Your task to perform on an android device: delete a single message in the gmail app Image 0: 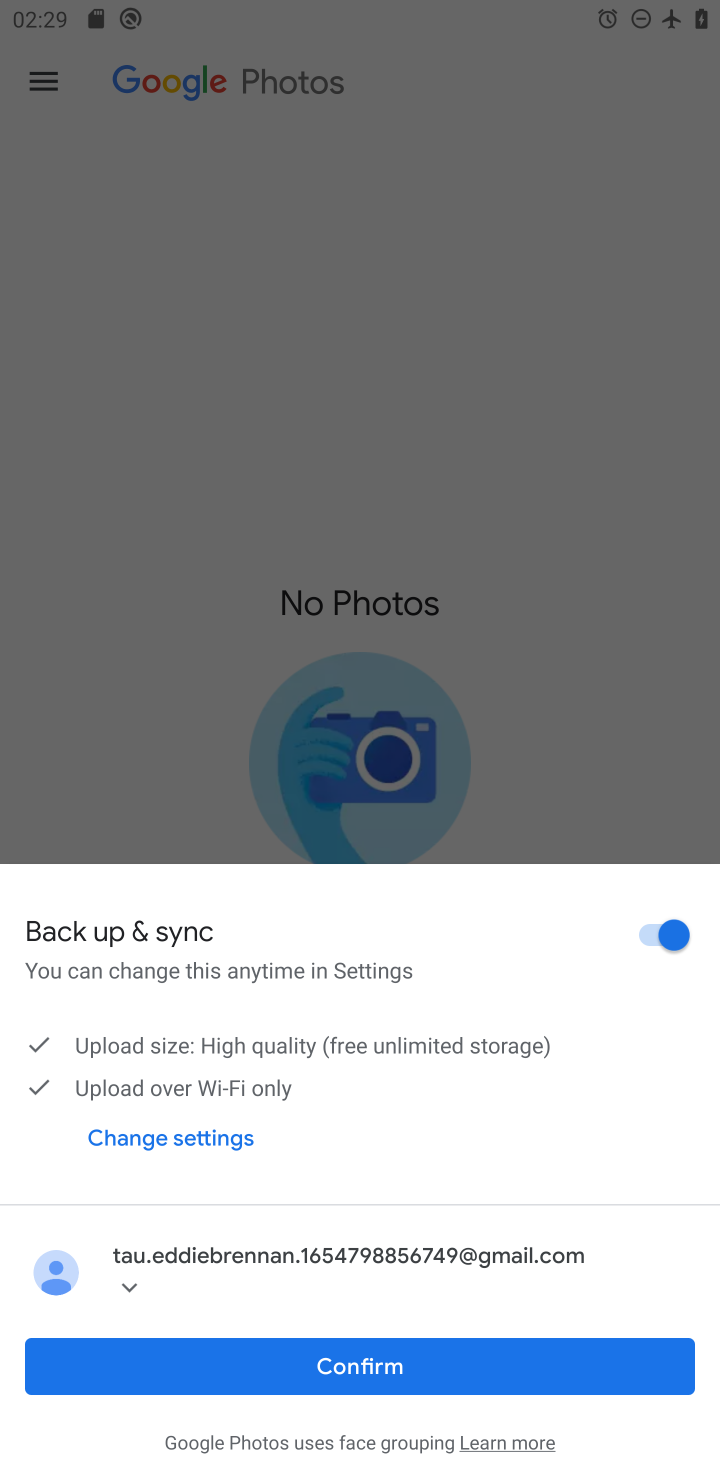
Step 0: press home button
Your task to perform on an android device: delete a single message in the gmail app Image 1: 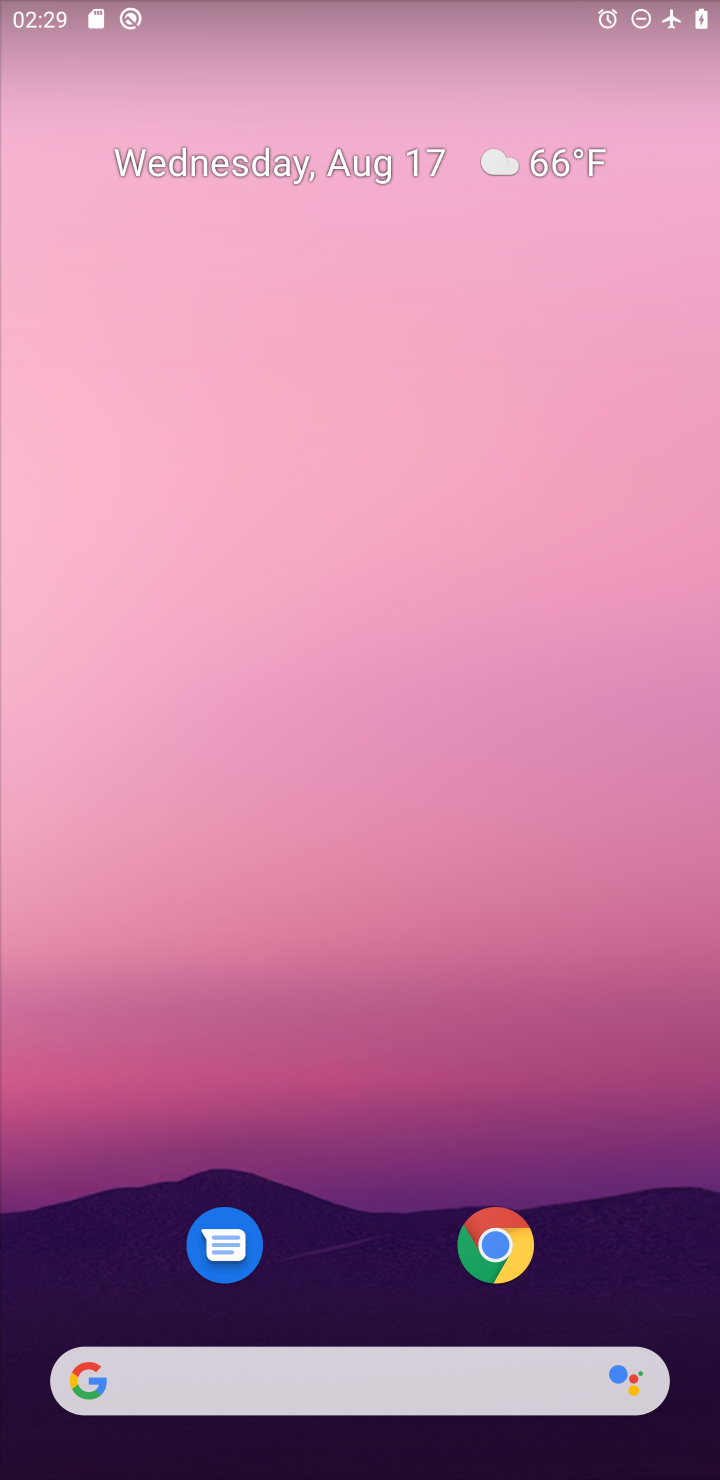
Step 1: drag from (343, 948) to (322, 20)
Your task to perform on an android device: delete a single message in the gmail app Image 2: 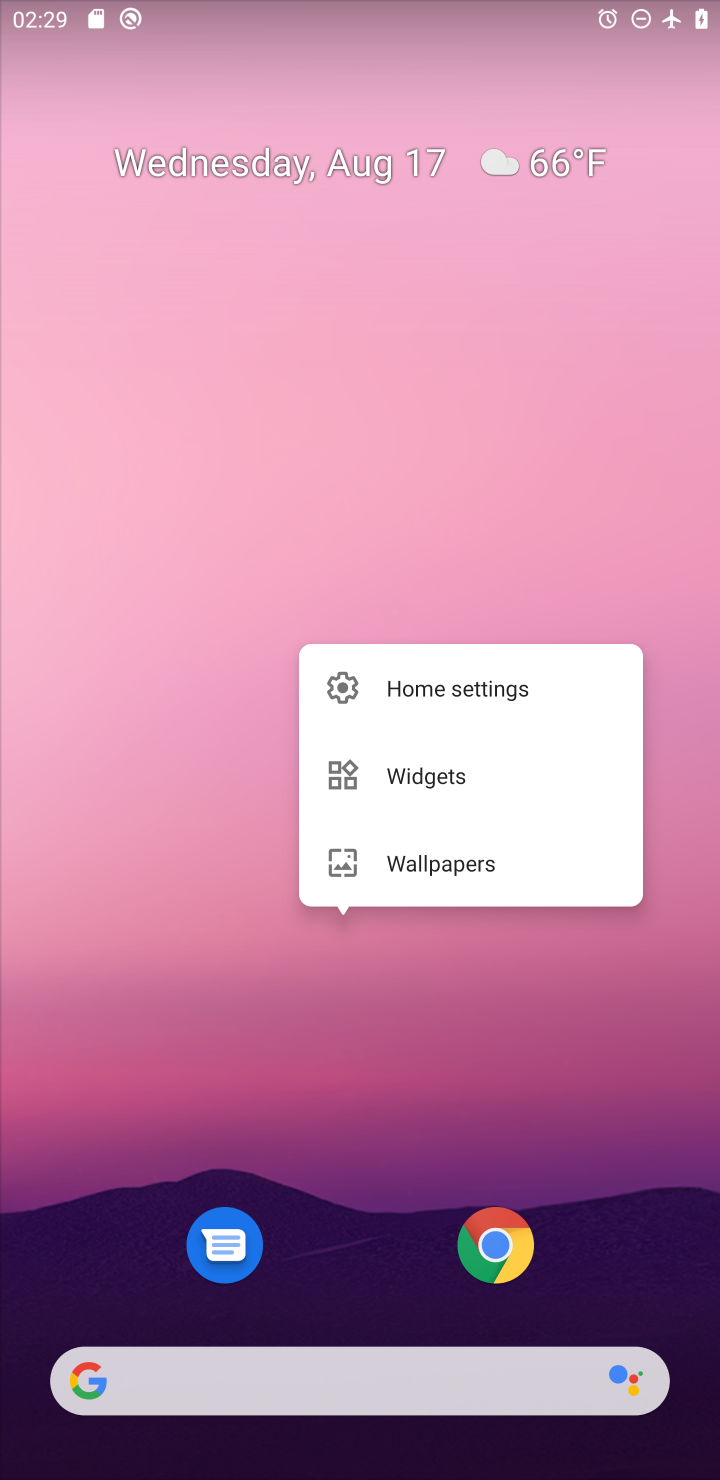
Step 2: click (446, 1030)
Your task to perform on an android device: delete a single message in the gmail app Image 3: 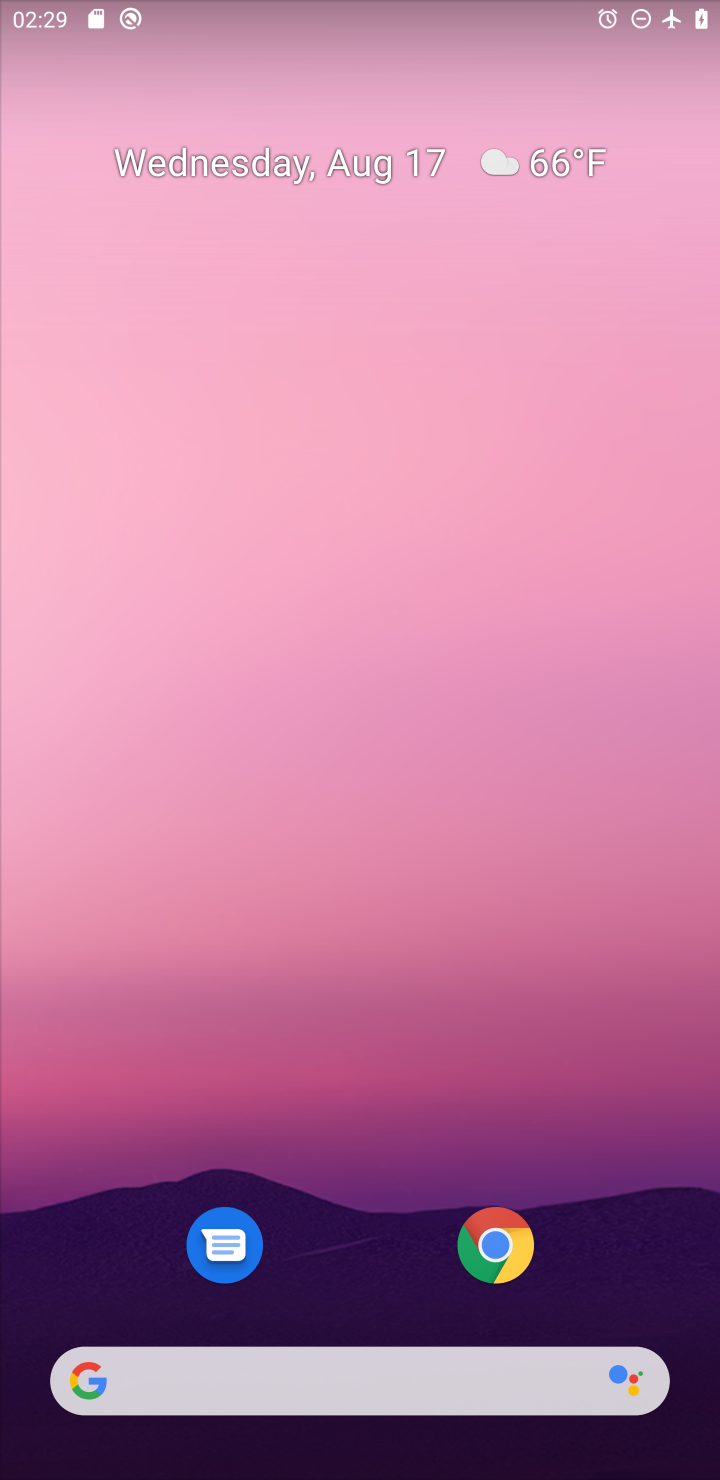
Step 3: drag from (373, 1174) to (323, 273)
Your task to perform on an android device: delete a single message in the gmail app Image 4: 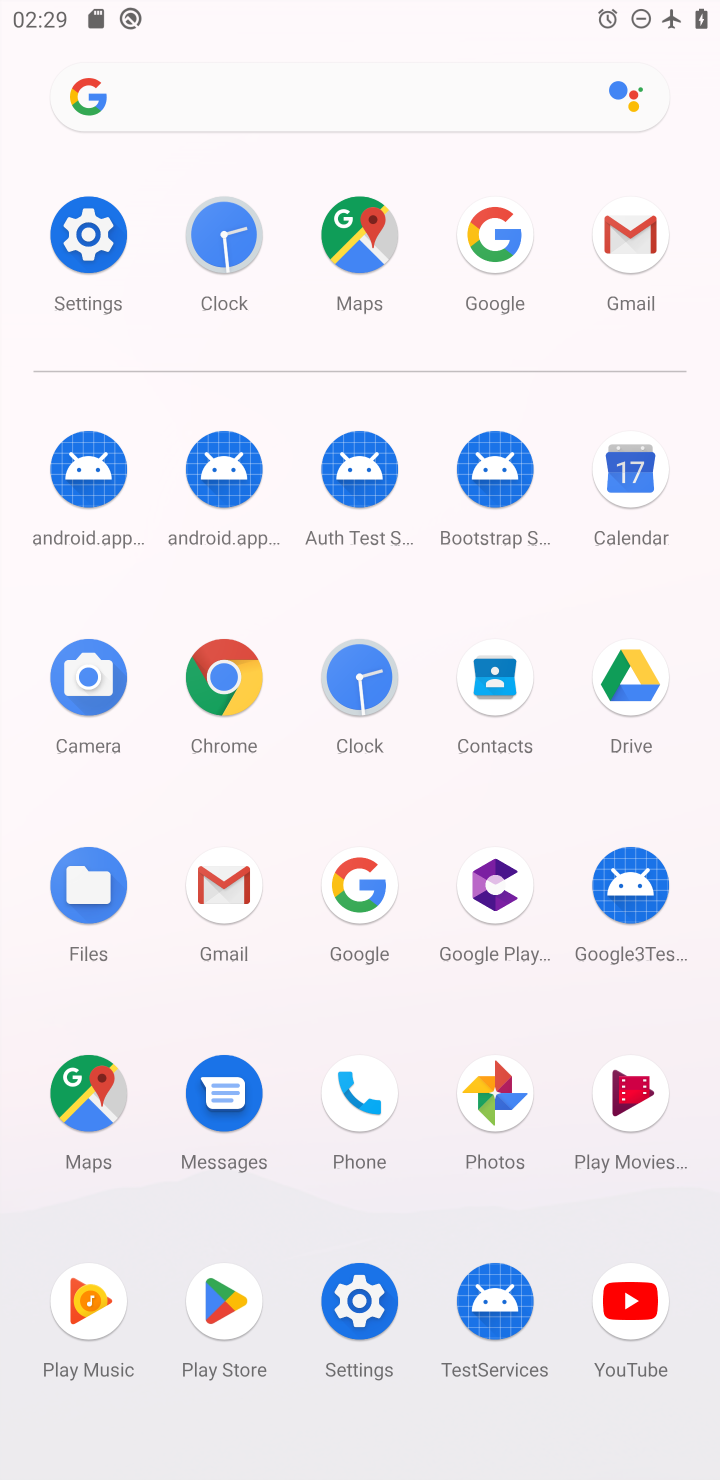
Step 4: click (228, 876)
Your task to perform on an android device: delete a single message in the gmail app Image 5: 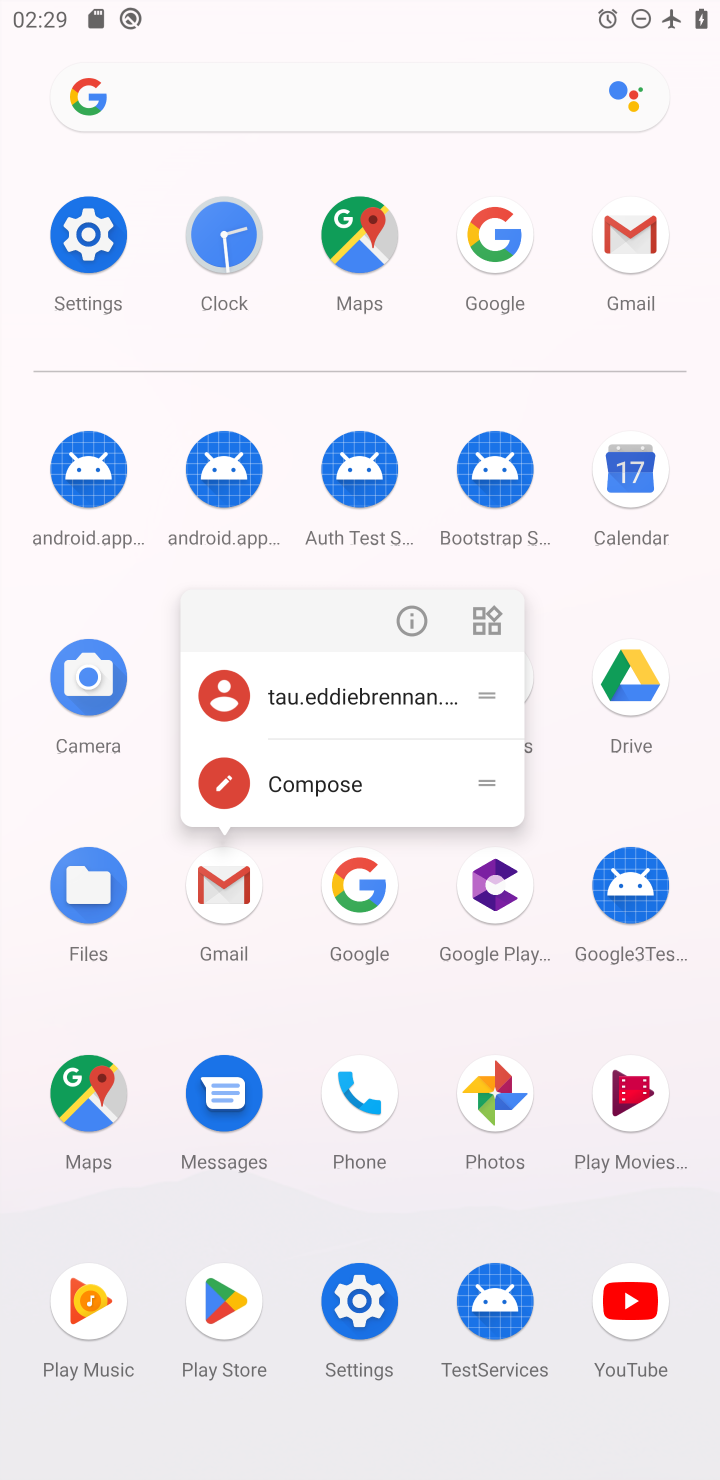
Step 5: click (228, 876)
Your task to perform on an android device: delete a single message in the gmail app Image 6: 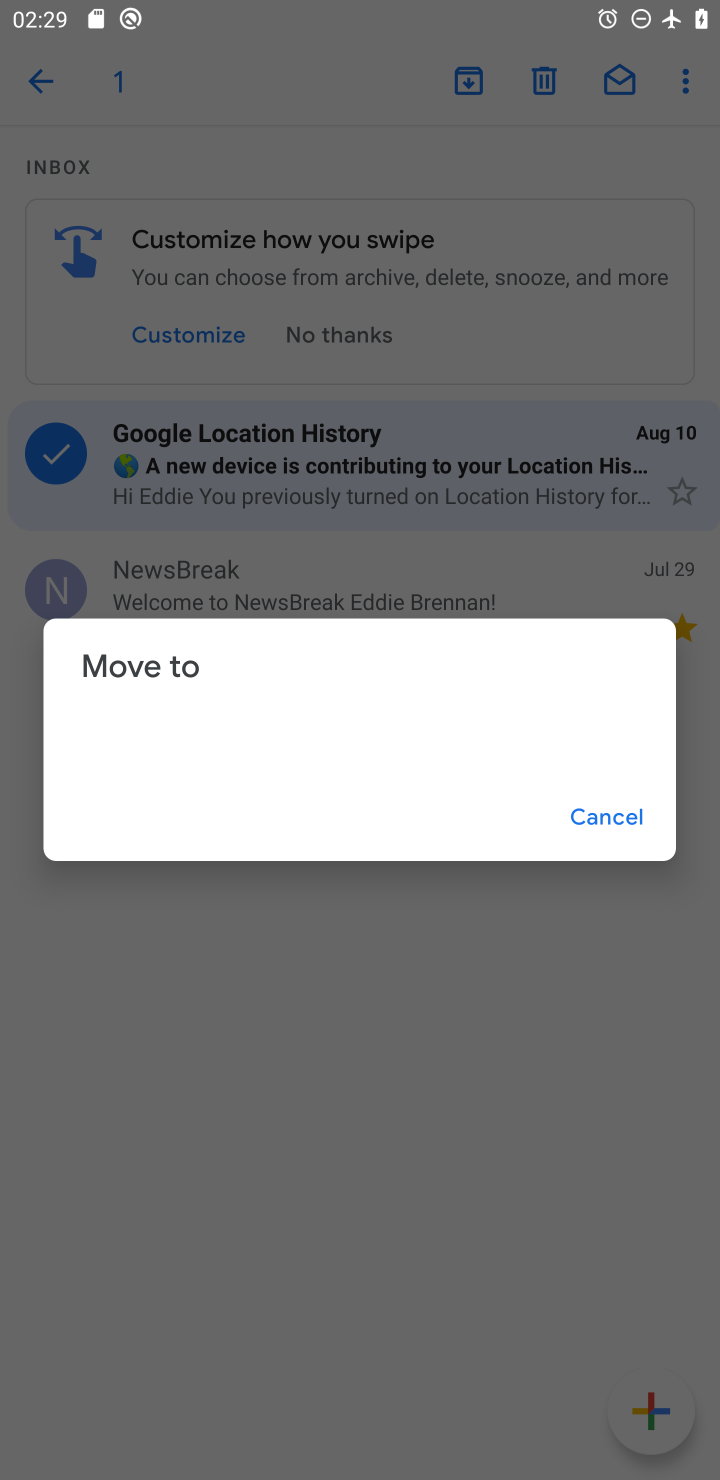
Step 6: click (601, 815)
Your task to perform on an android device: delete a single message in the gmail app Image 7: 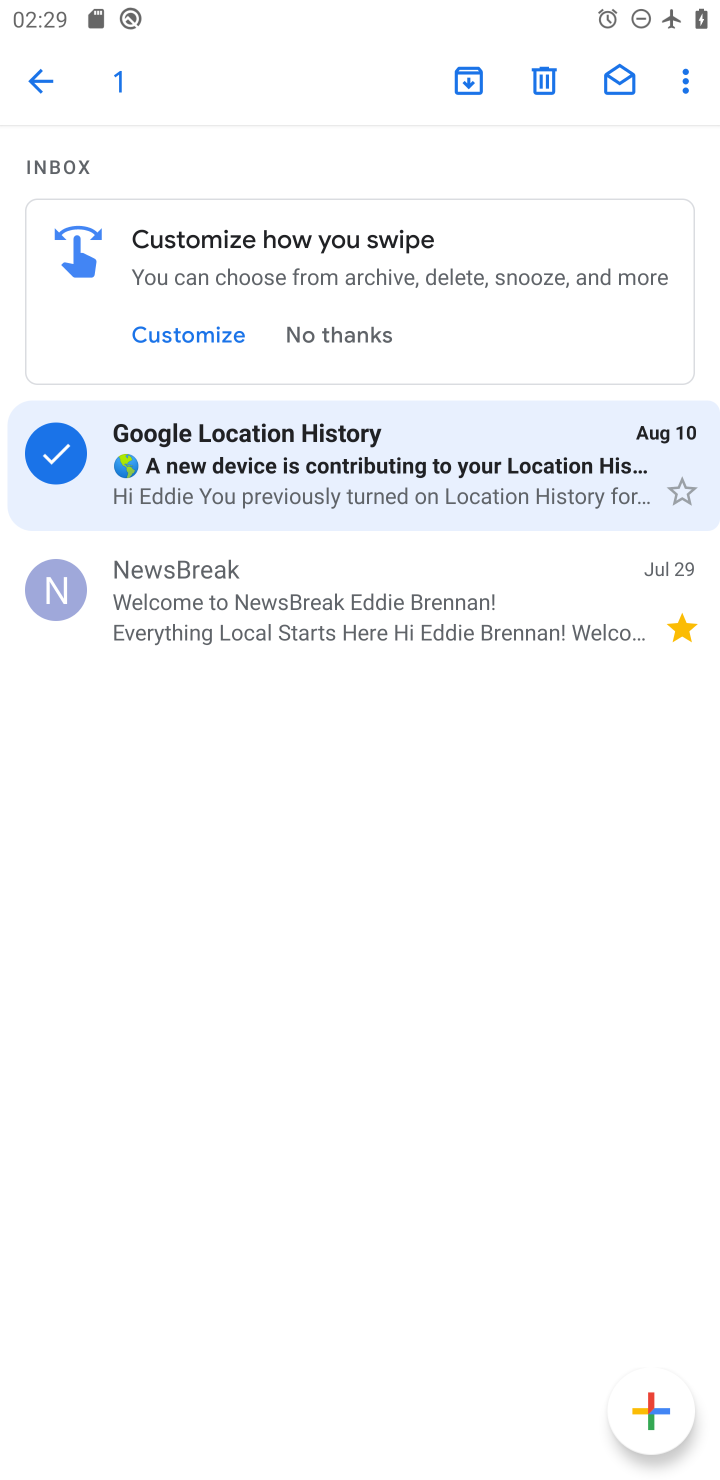
Step 7: click (533, 68)
Your task to perform on an android device: delete a single message in the gmail app Image 8: 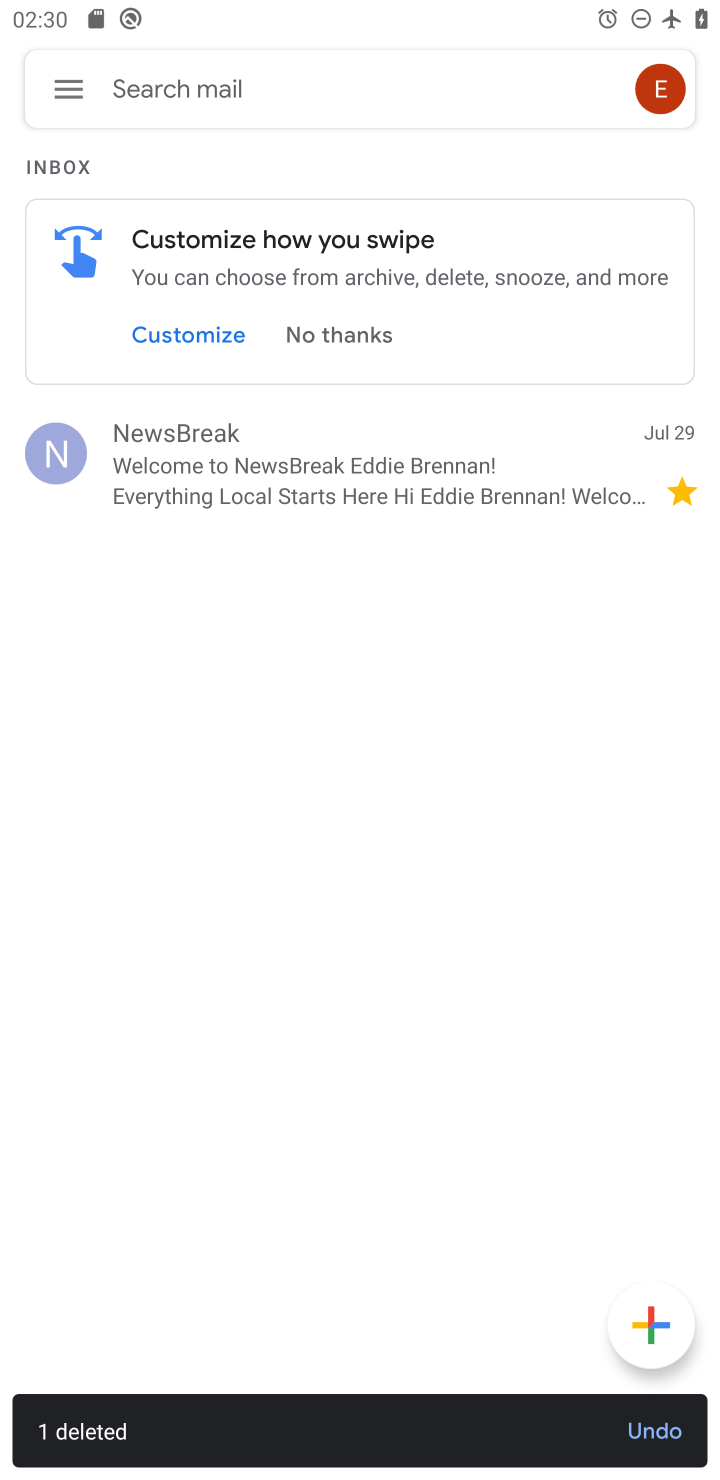
Step 8: task complete